Your task to perform on an android device: toggle data saver in the chrome app Image 0: 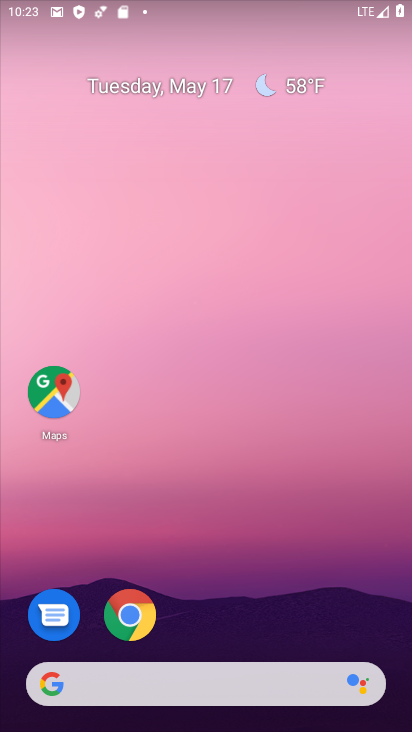
Step 0: click (158, 618)
Your task to perform on an android device: toggle data saver in the chrome app Image 1: 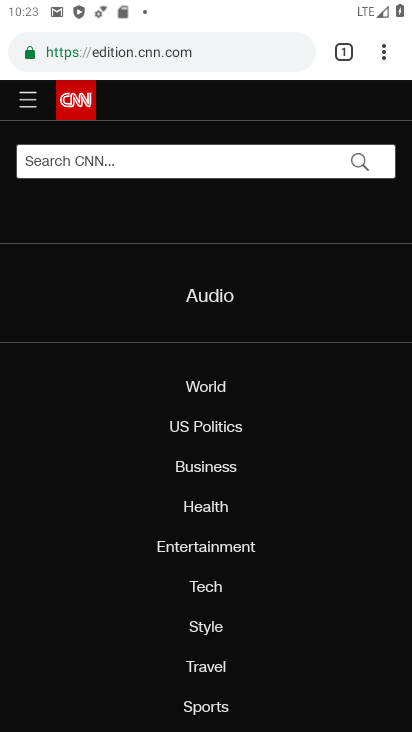
Step 1: click (386, 51)
Your task to perform on an android device: toggle data saver in the chrome app Image 2: 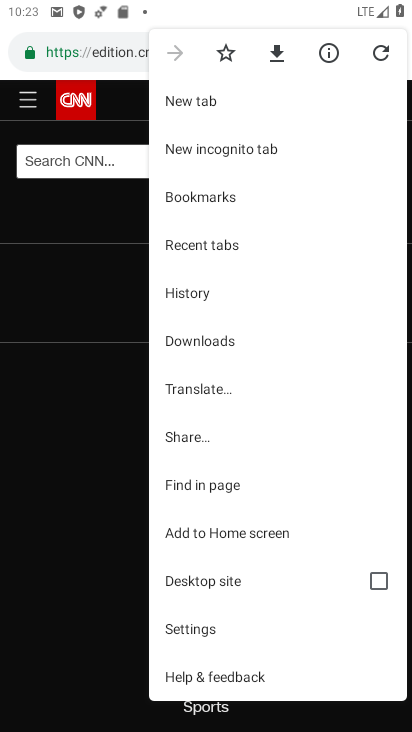
Step 2: drag from (284, 608) to (274, 306)
Your task to perform on an android device: toggle data saver in the chrome app Image 3: 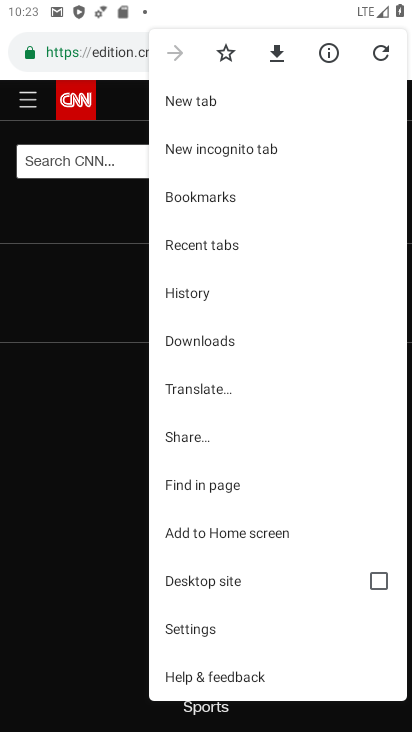
Step 3: click (224, 634)
Your task to perform on an android device: toggle data saver in the chrome app Image 4: 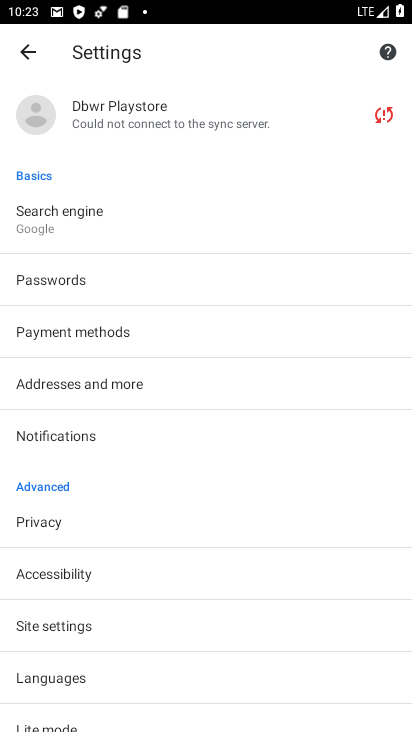
Step 4: drag from (175, 658) to (188, 388)
Your task to perform on an android device: toggle data saver in the chrome app Image 5: 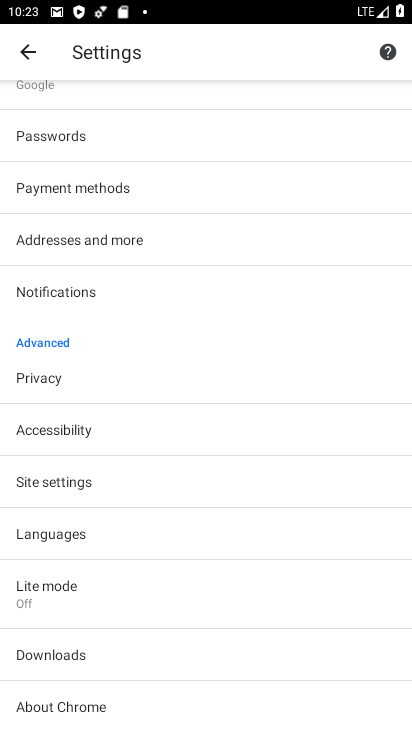
Step 5: click (74, 579)
Your task to perform on an android device: toggle data saver in the chrome app Image 6: 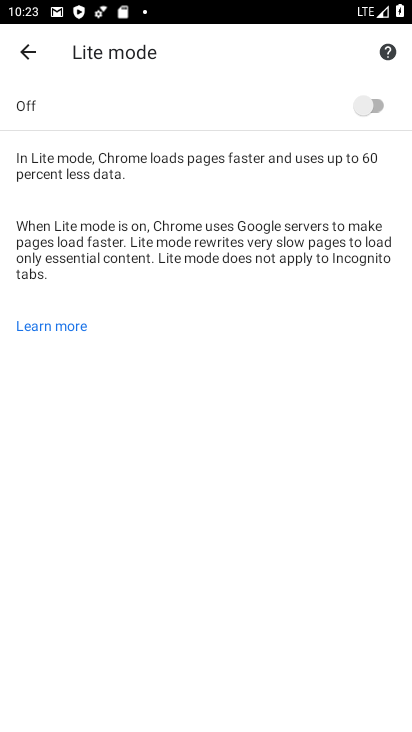
Step 6: click (372, 102)
Your task to perform on an android device: toggle data saver in the chrome app Image 7: 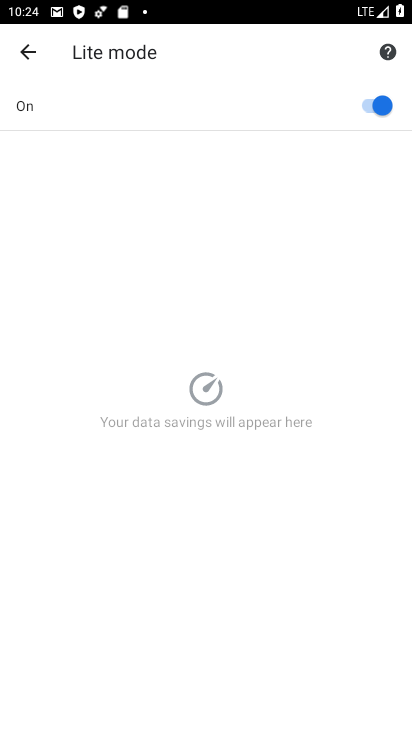
Step 7: task complete